Your task to perform on an android device: change text size in settings app Image 0: 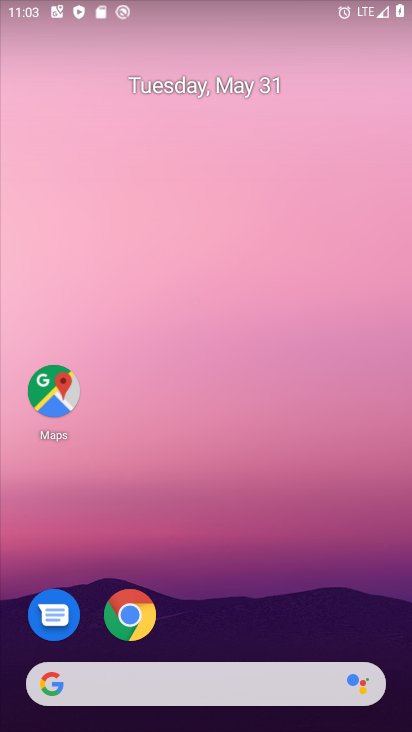
Step 0: drag from (325, 621) to (323, 28)
Your task to perform on an android device: change text size in settings app Image 1: 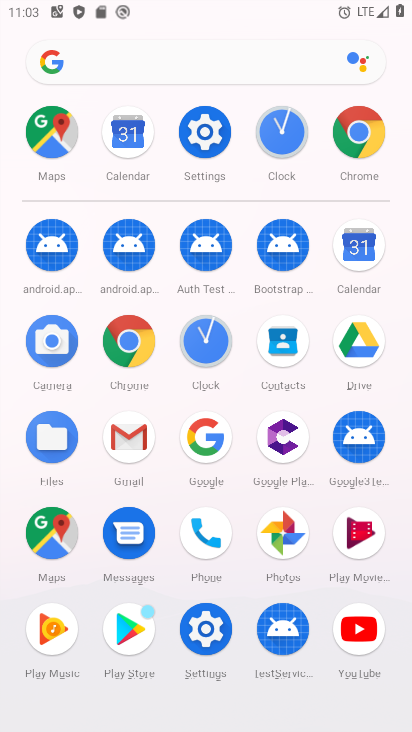
Step 1: click (213, 133)
Your task to perform on an android device: change text size in settings app Image 2: 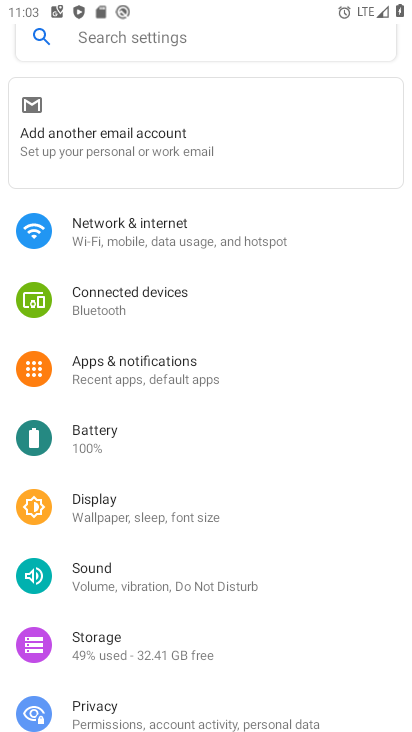
Step 2: click (177, 519)
Your task to perform on an android device: change text size in settings app Image 3: 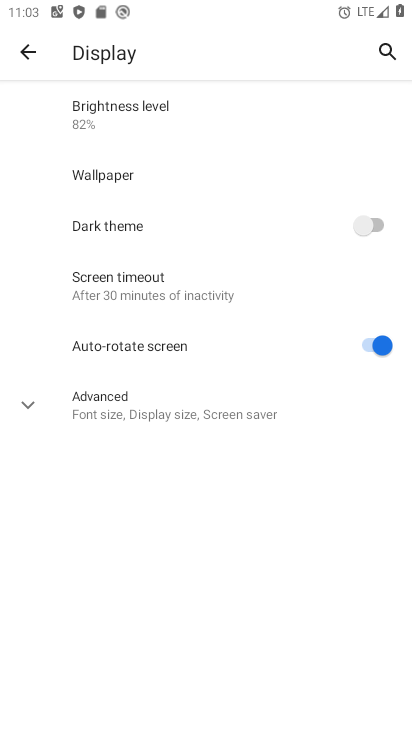
Step 3: click (163, 423)
Your task to perform on an android device: change text size in settings app Image 4: 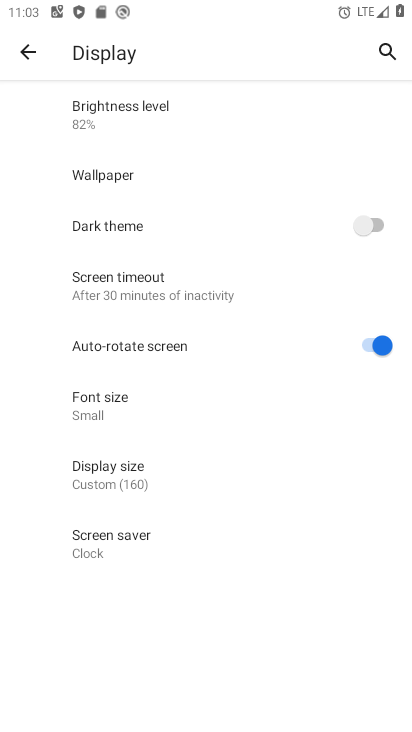
Step 4: click (97, 407)
Your task to perform on an android device: change text size in settings app Image 5: 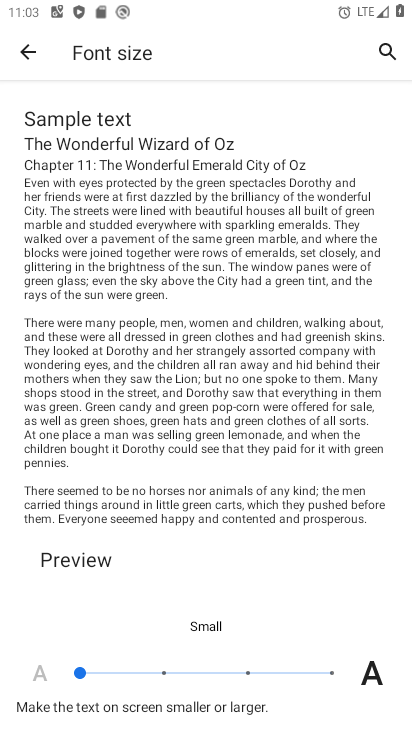
Step 5: click (144, 679)
Your task to perform on an android device: change text size in settings app Image 6: 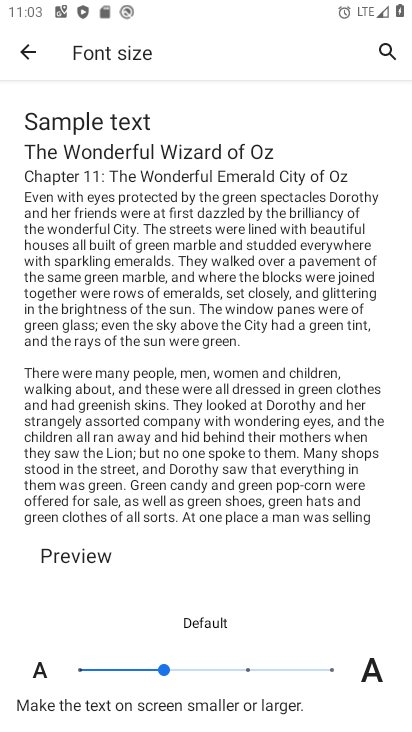
Step 6: task complete